Your task to perform on an android device: turn off javascript in the chrome app Image 0: 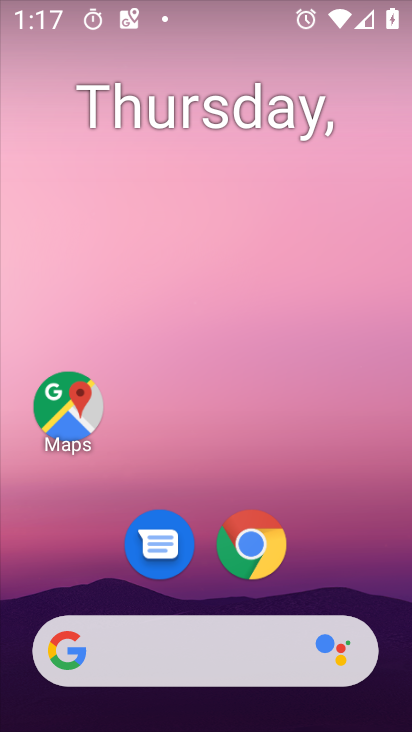
Step 0: click (252, 551)
Your task to perform on an android device: turn off javascript in the chrome app Image 1: 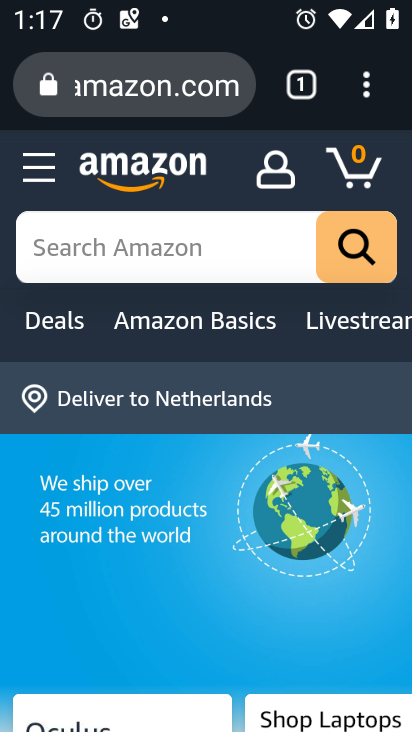
Step 1: click (360, 80)
Your task to perform on an android device: turn off javascript in the chrome app Image 2: 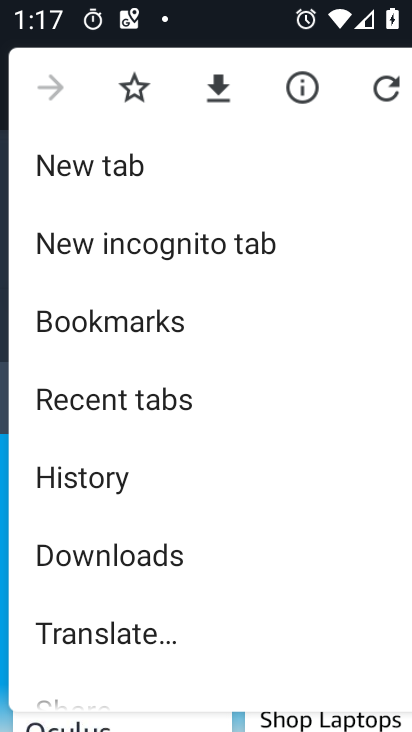
Step 2: drag from (74, 652) to (391, 130)
Your task to perform on an android device: turn off javascript in the chrome app Image 3: 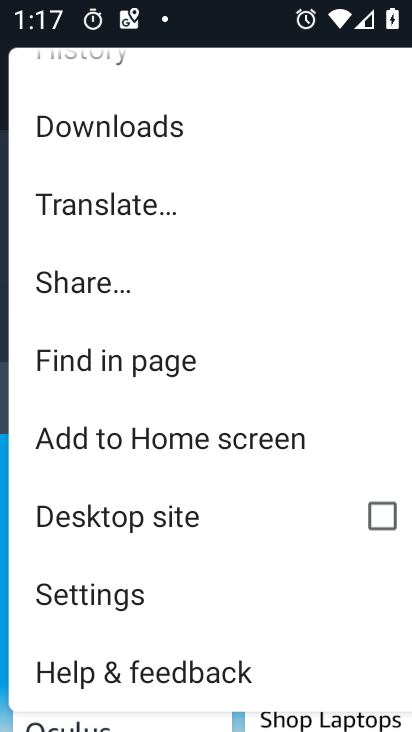
Step 3: click (127, 593)
Your task to perform on an android device: turn off javascript in the chrome app Image 4: 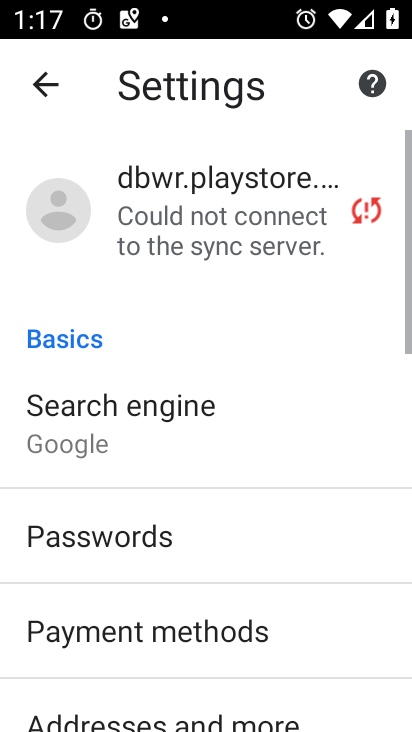
Step 4: drag from (97, 688) to (303, 175)
Your task to perform on an android device: turn off javascript in the chrome app Image 5: 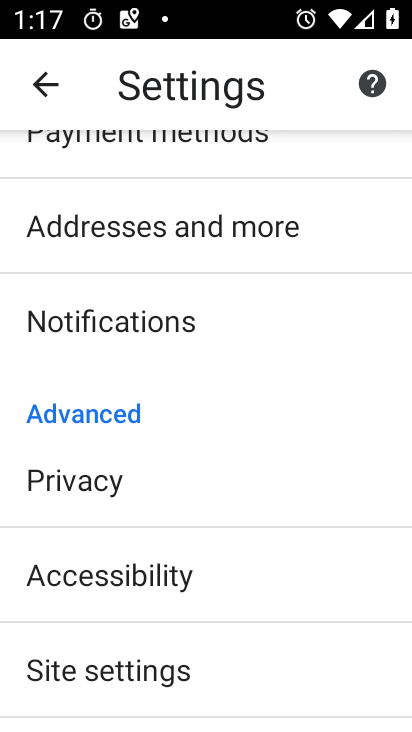
Step 5: drag from (54, 673) to (199, 270)
Your task to perform on an android device: turn off javascript in the chrome app Image 6: 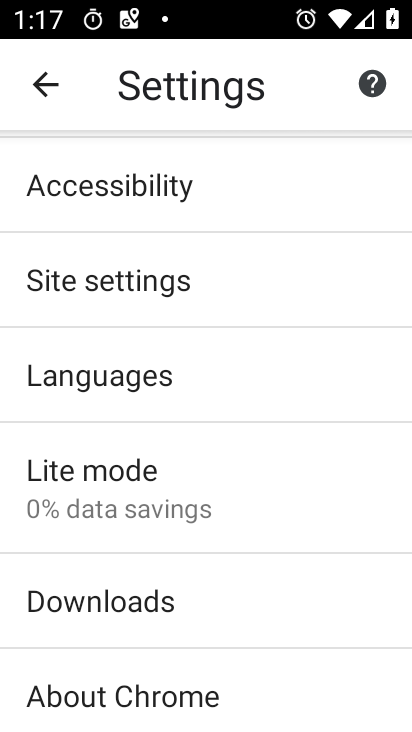
Step 6: click (64, 291)
Your task to perform on an android device: turn off javascript in the chrome app Image 7: 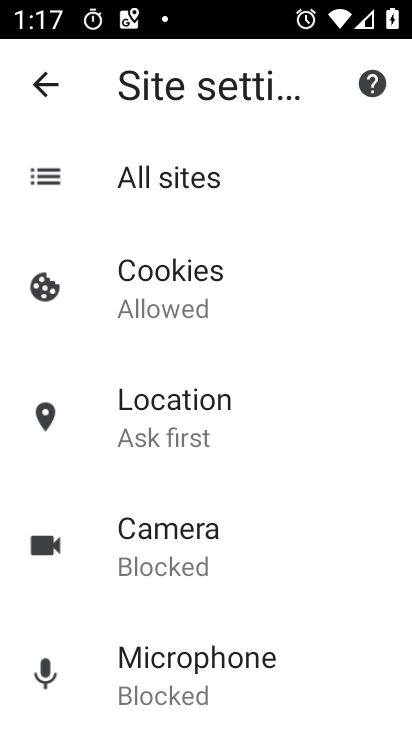
Step 7: drag from (95, 718) to (380, 280)
Your task to perform on an android device: turn off javascript in the chrome app Image 8: 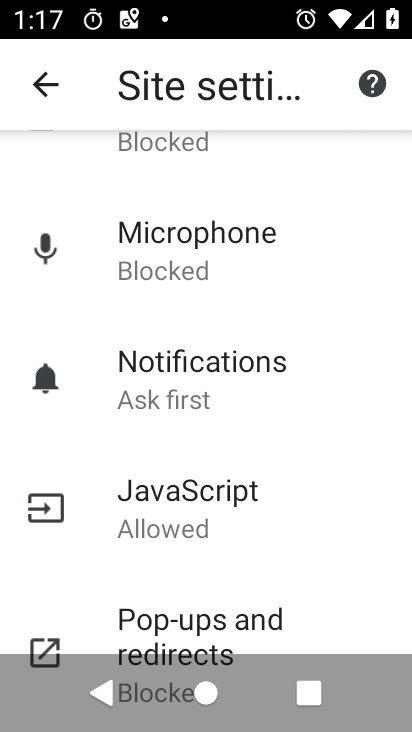
Step 8: click (173, 498)
Your task to perform on an android device: turn off javascript in the chrome app Image 9: 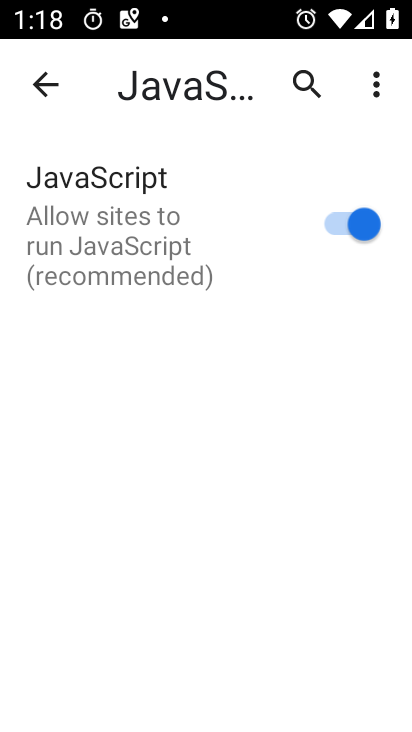
Step 9: click (376, 229)
Your task to perform on an android device: turn off javascript in the chrome app Image 10: 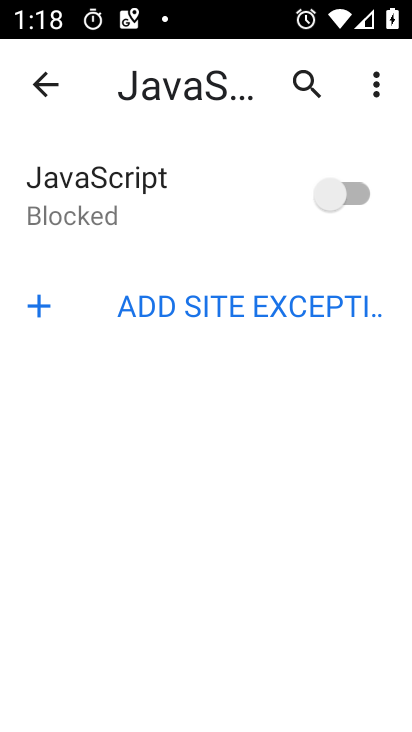
Step 10: task complete